Your task to perform on an android device: Open Google Chrome Image 0: 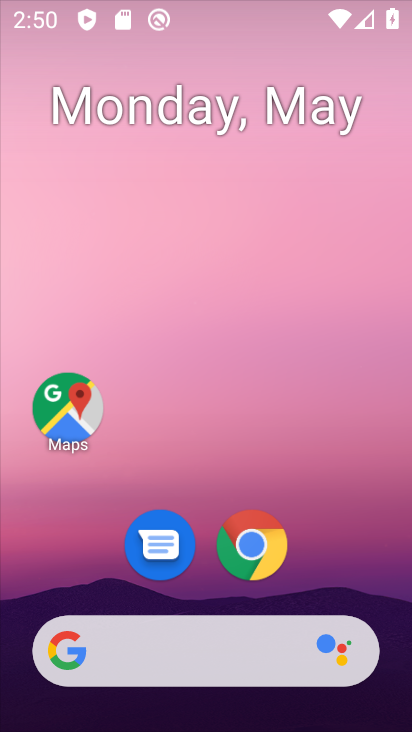
Step 0: drag from (111, 725) to (114, 101)
Your task to perform on an android device: Open Google Chrome Image 1: 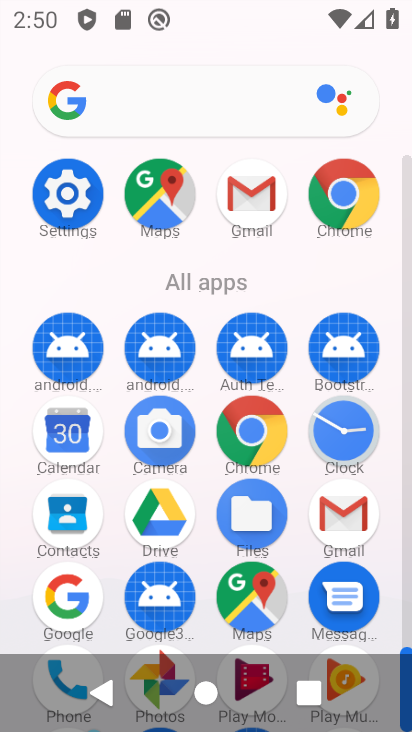
Step 1: click (348, 197)
Your task to perform on an android device: Open Google Chrome Image 2: 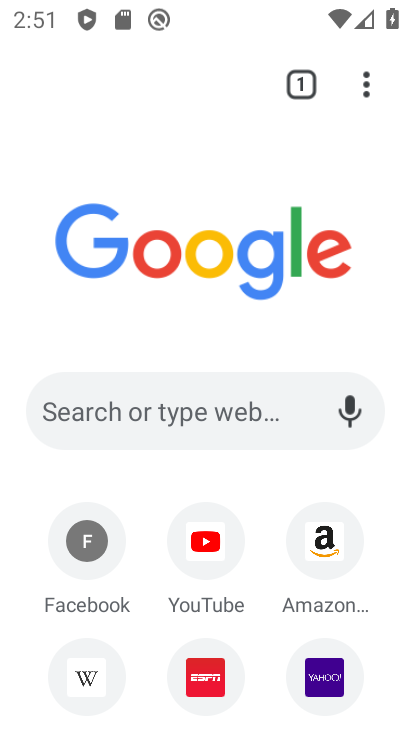
Step 2: task complete